Your task to perform on an android device: Open Youtube and go to the subscriptions tab Image 0: 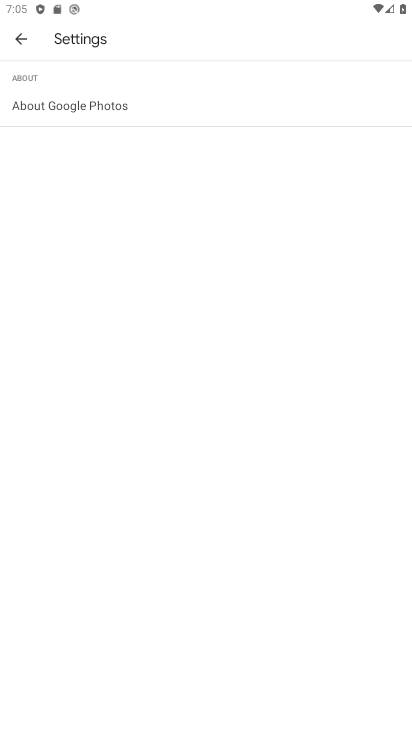
Step 0: press home button
Your task to perform on an android device: Open Youtube and go to the subscriptions tab Image 1: 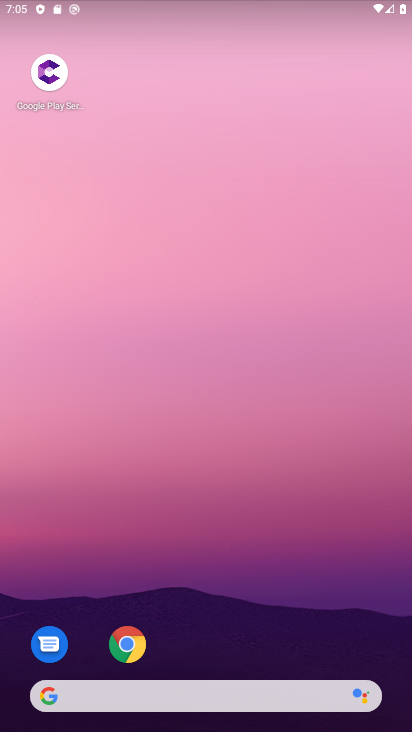
Step 1: drag from (201, 709) to (354, 206)
Your task to perform on an android device: Open Youtube and go to the subscriptions tab Image 2: 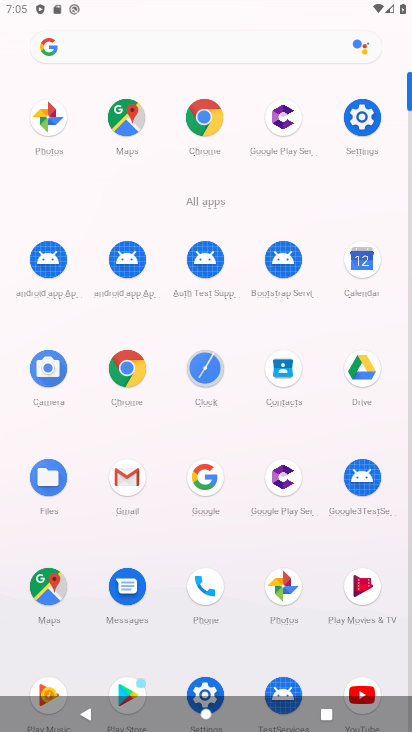
Step 2: click (350, 687)
Your task to perform on an android device: Open Youtube and go to the subscriptions tab Image 3: 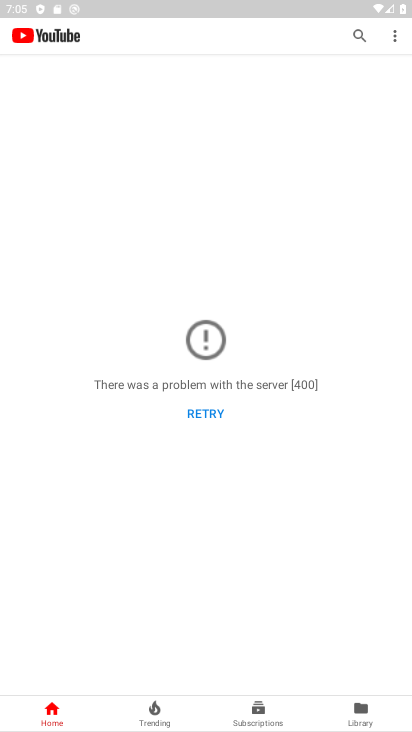
Step 3: click (264, 707)
Your task to perform on an android device: Open Youtube and go to the subscriptions tab Image 4: 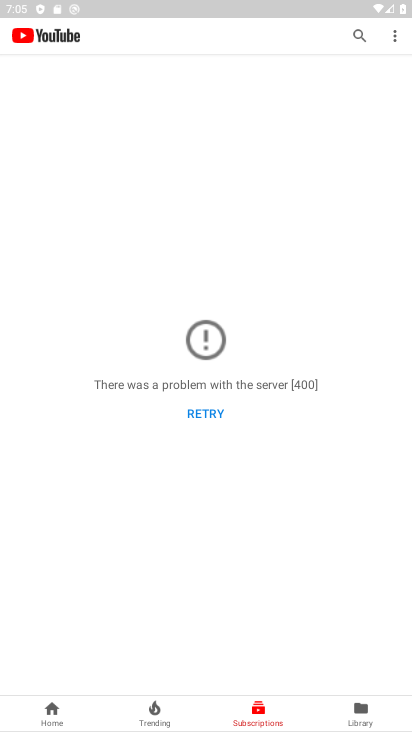
Step 4: click (241, 721)
Your task to perform on an android device: Open Youtube and go to the subscriptions tab Image 5: 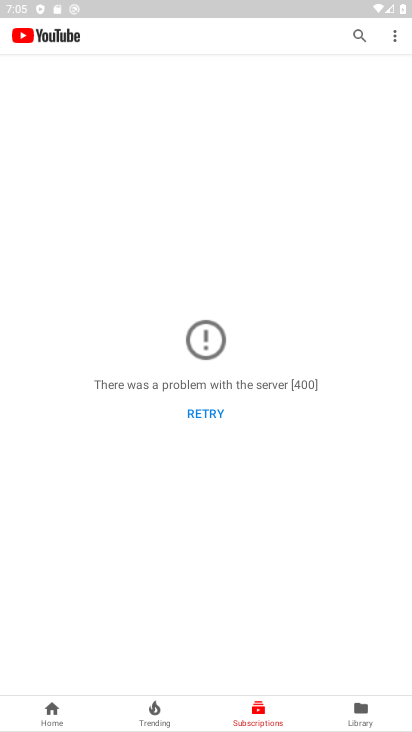
Step 5: task complete